Your task to perform on an android device: What is the recent news? Image 0: 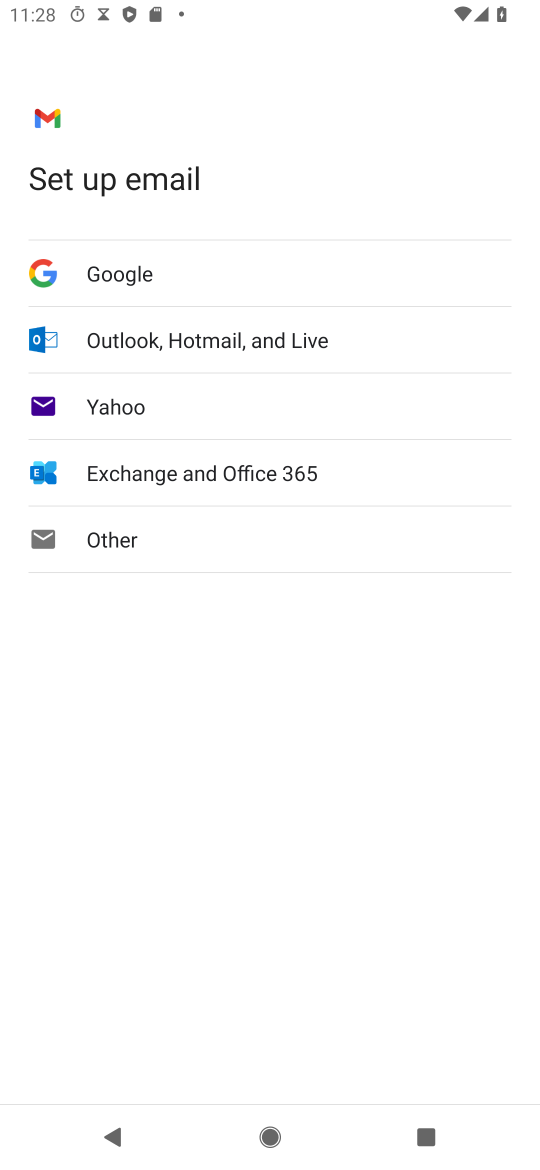
Step 0: press home button
Your task to perform on an android device: What is the recent news? Image 1: 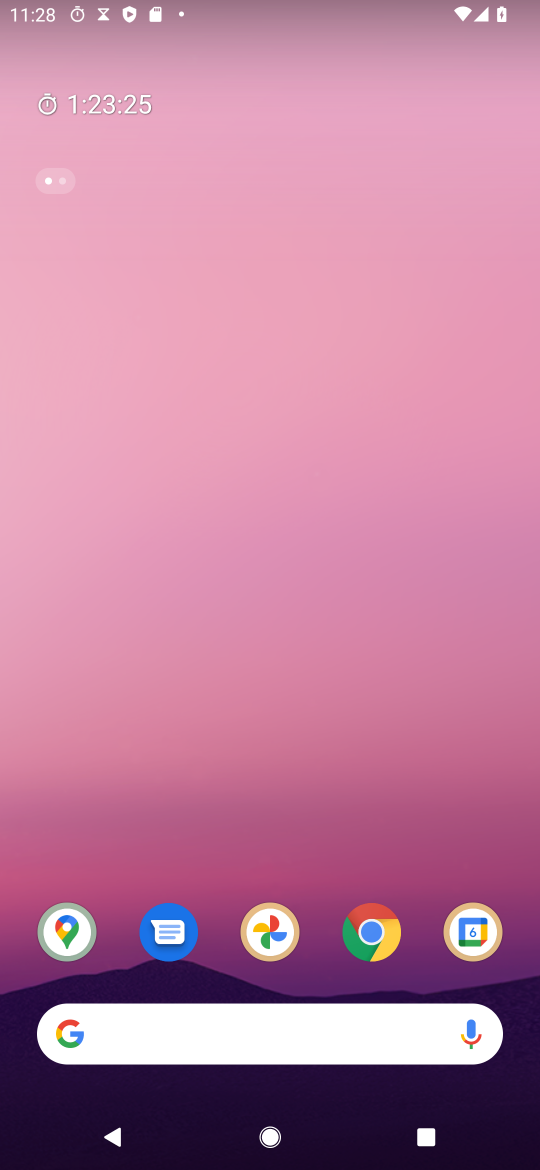
Step 1: drag from (420, 827) to (343, 42)
Your task to perform on an android device: What is the recent news? Image 2: 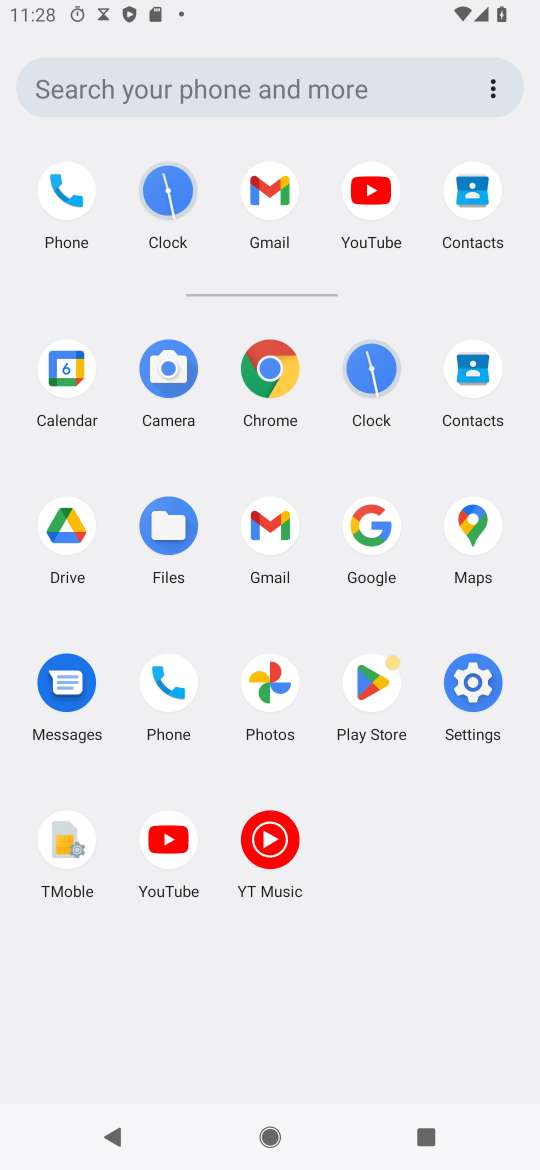
Step 2: click (286, 369)
Your task to perform on an android device: What is the recent news? Image 3: 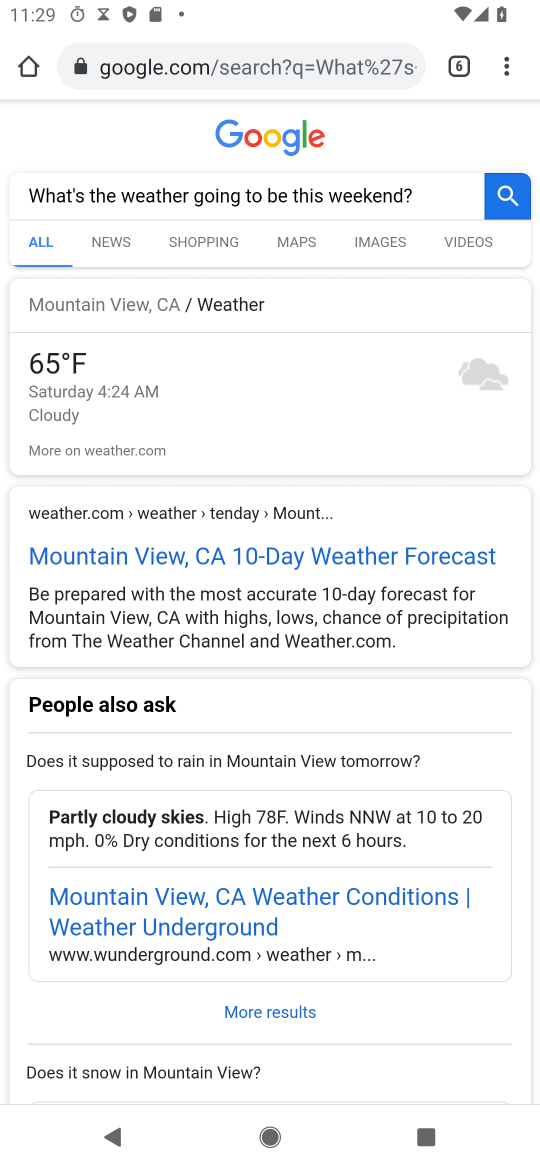
Step 3: click (291, 81)
Your task to perform on an android device: What is the recent news? Image 4: 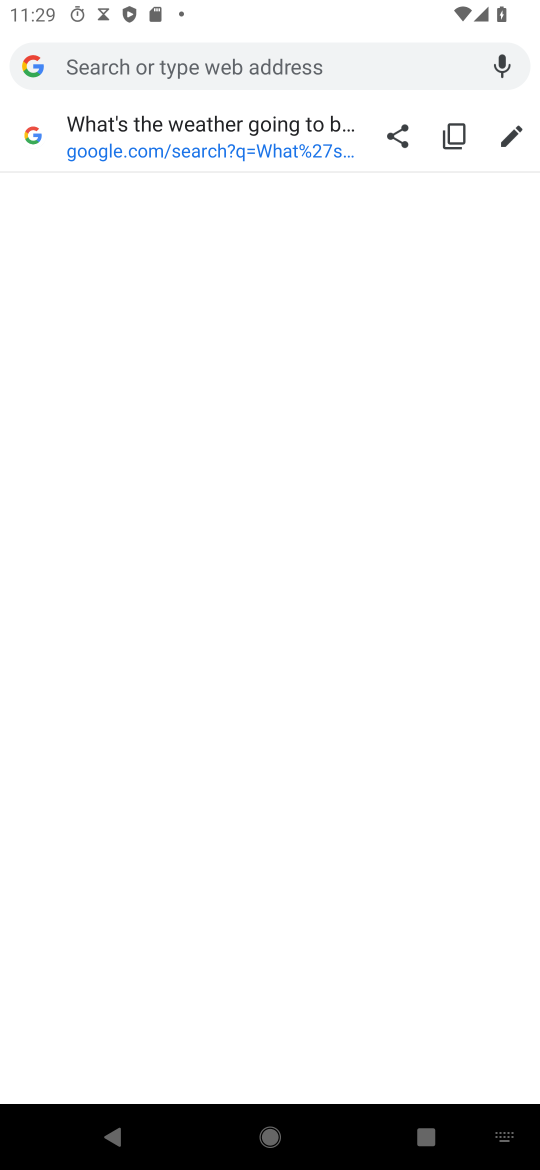
Step 4: type "What is the recent news?"
Your task to perform on an android device: What is the recent news? Image 5: 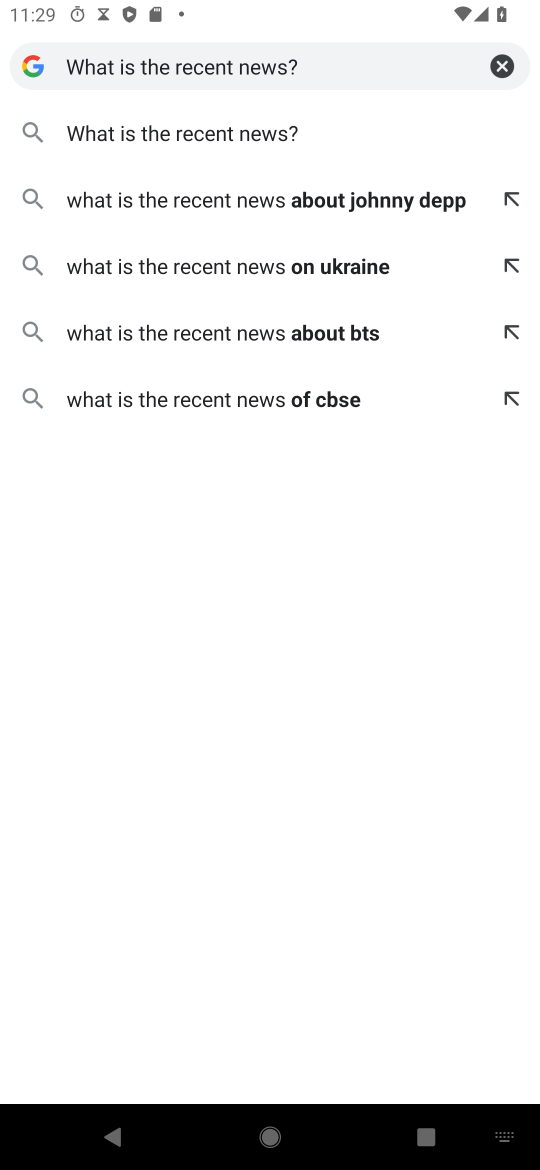
Step 5: click (178, 122)
Your task to perform on an android device: What is the recent news? Image 6: 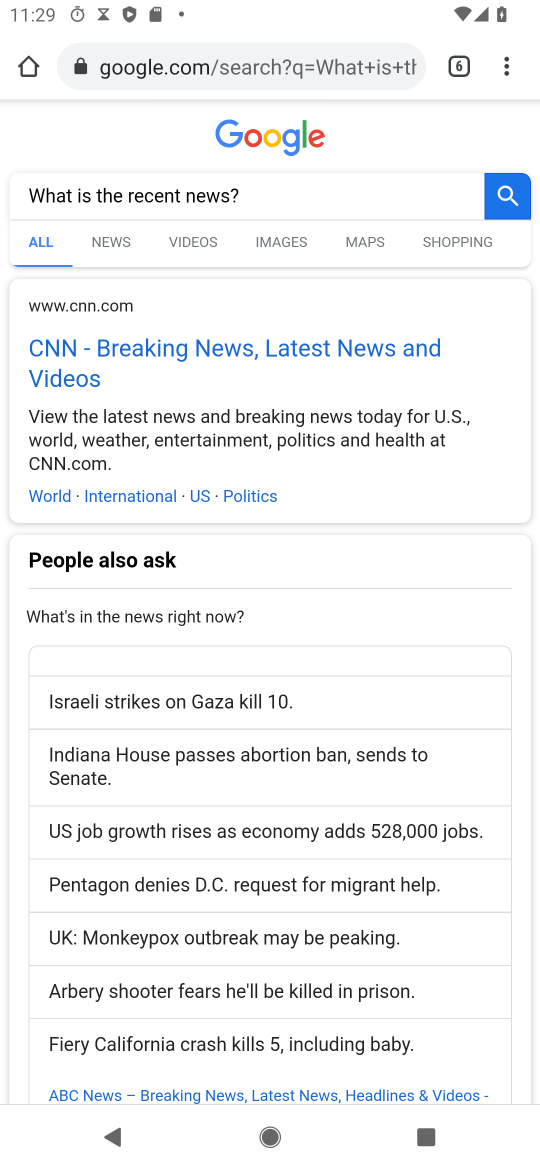
Step 6: click (253, 351)
Your task to perform on an android device: What is the recent news? Image 7: 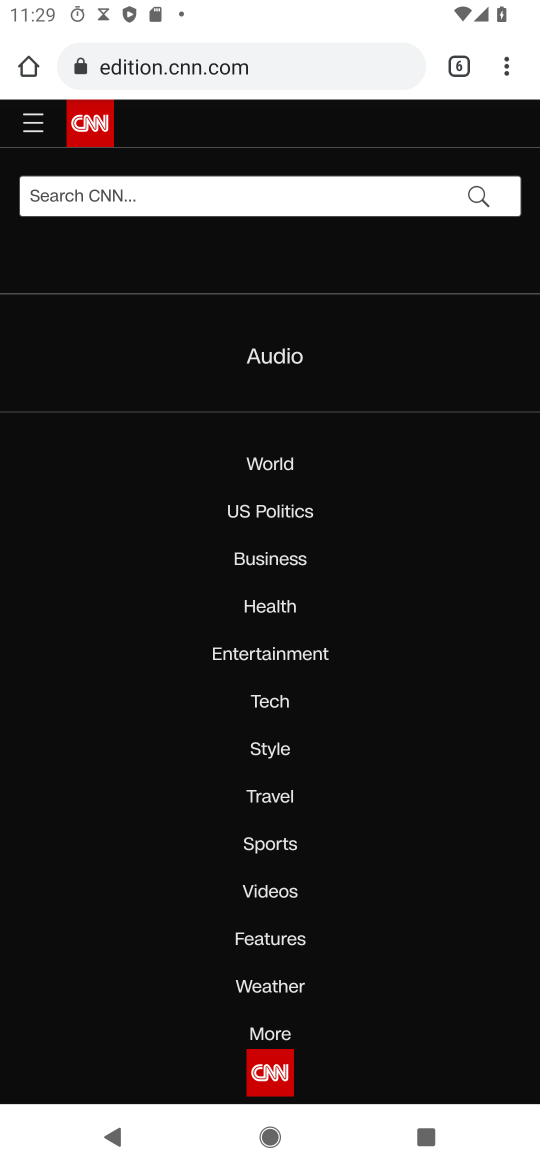
Step 7: task complete